Your task to perform on an android device: Open the web browser Image 0: 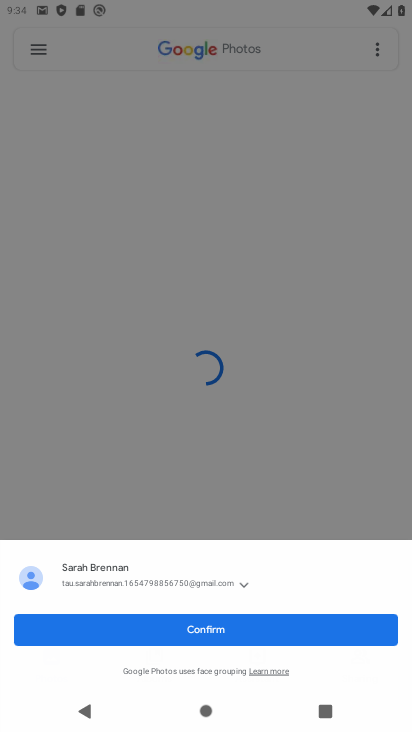
Step 0: press home button
Your task to perform on an android device: Open the web browser Image 1: 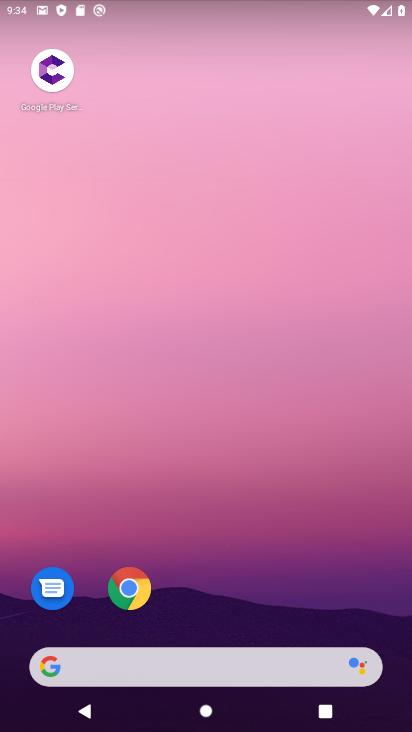
Step 1: click (128, 592)
Your task to perform on an android device: Open the web browser Image 2: 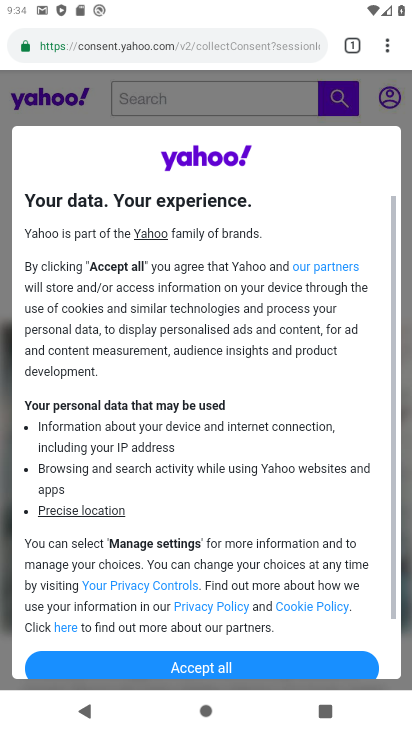
Step 2: task complete